Your task to perform on an android device: Open CNN.com Image 0: 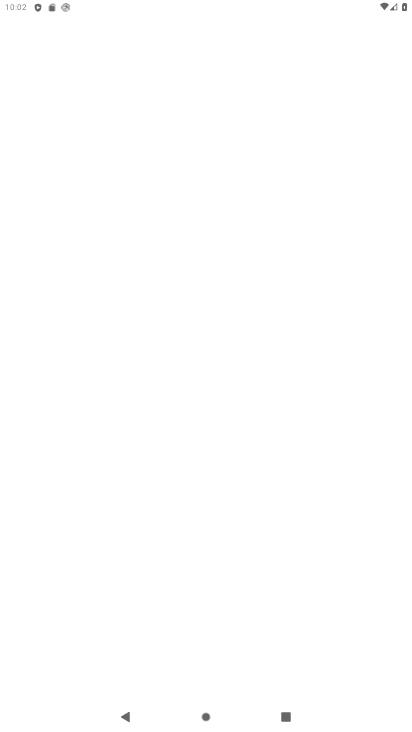
Step 0: press home button
Your task to perform on an android device: Open CNN.com Image 1: 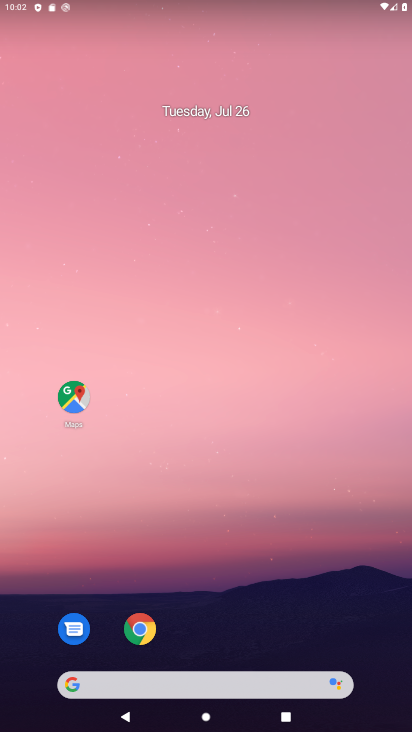
Step 1: drag from (228, 670) to (179, 45)
Your task to perform on an android device: Open CNN.com Image 2: 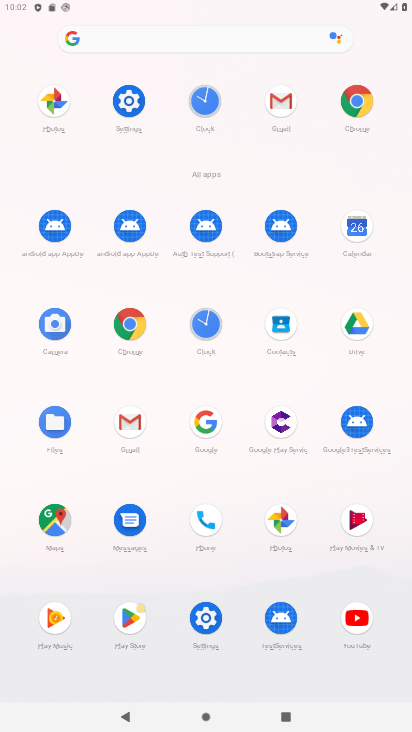
Step 2: click (188, 35)
Your task to perform on an android device: Open CNN.com Image 3: 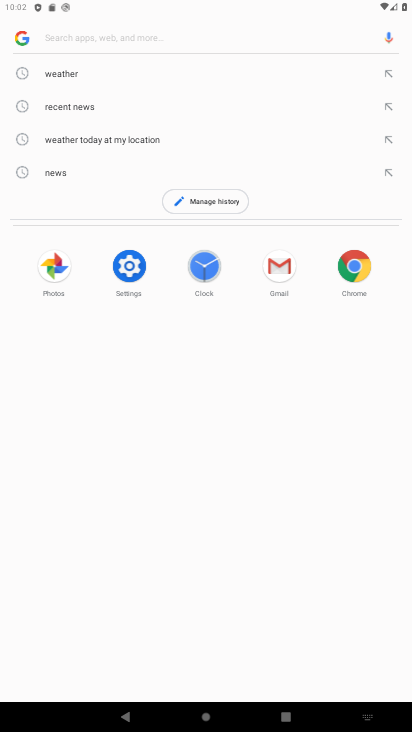
Step 3: type "cnn.com"
Your task to perform on an android device: Open CNN.com Image 4: 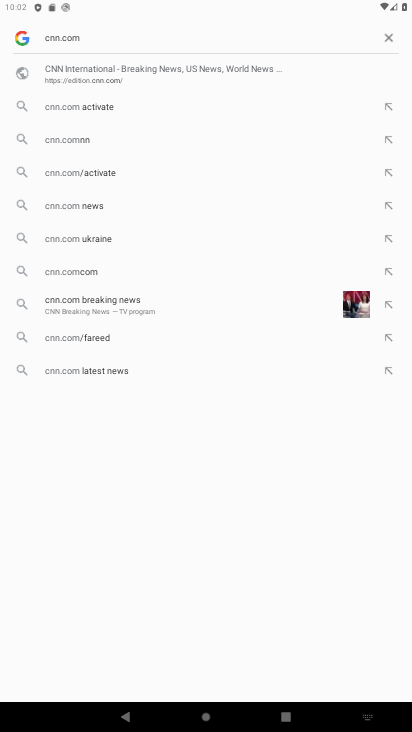
Step 4: click (91, 80)
Your task to perform on an android device: Open CNN.com Image 5: 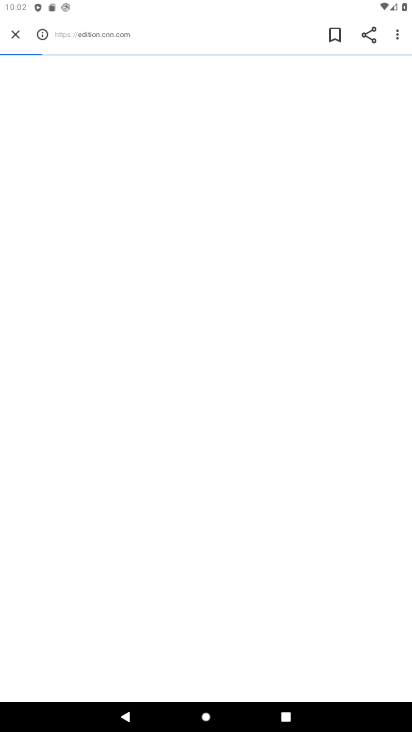
Step 5: task complete